Your task to perform on an android device: turn on the 12-hour format for clock Image 0: 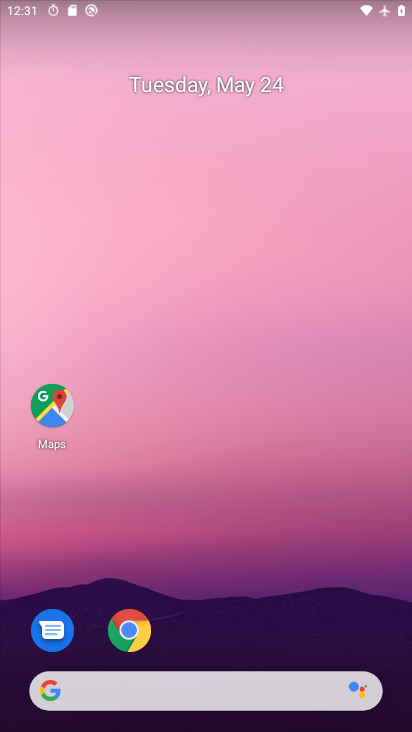
Step 0: drag from (209, 625) to (257, 135)
Your task to perform on an android device: turn on the 12-hour format for clock Image 1: 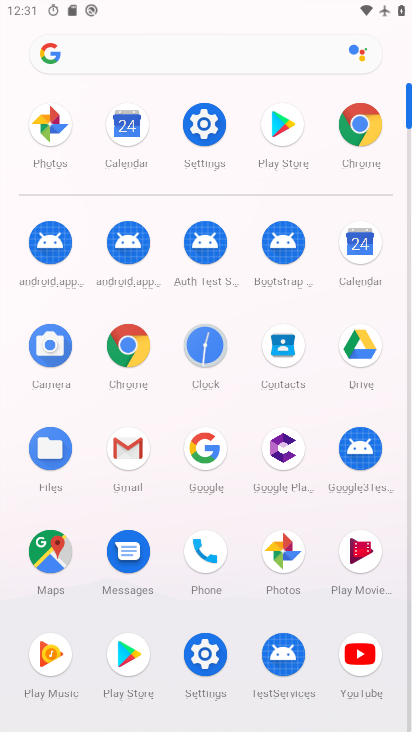
Step 1: click (226, 660)
Your task to perform on an android device: turn on the 12-hour format for clock Image 2: 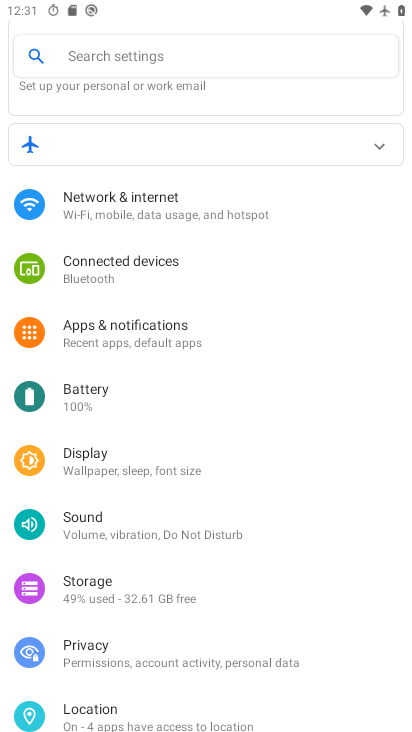
Step 2: drag from (157, 657) to (184, 386)
Your task to perform on an android device: turn on the 12-hour format for clock Image 3: 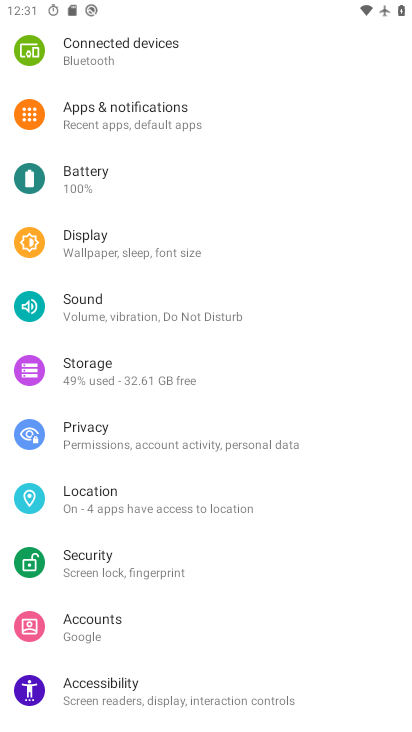
Step 3: drag from (140, 607) to (195, 379)
Your task to perform on an android device: turn on the 12-hour format for clock Image 4: 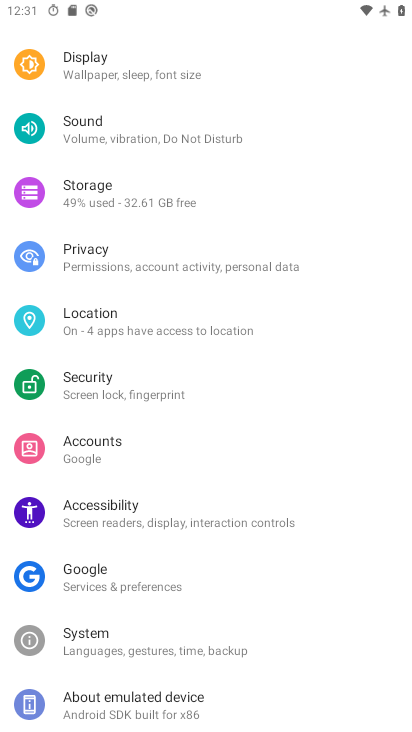
Step 4: click (146, 661)
Your task to perform on an android device: turn on the 12-hour format for clock Image 5: 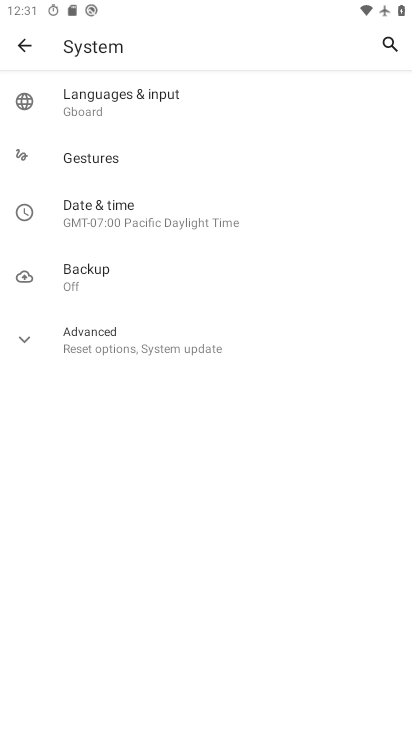
Step 5: click (133, 226)
Your task to perform on an android device: turn on the 12-hour format for clock Image 6: 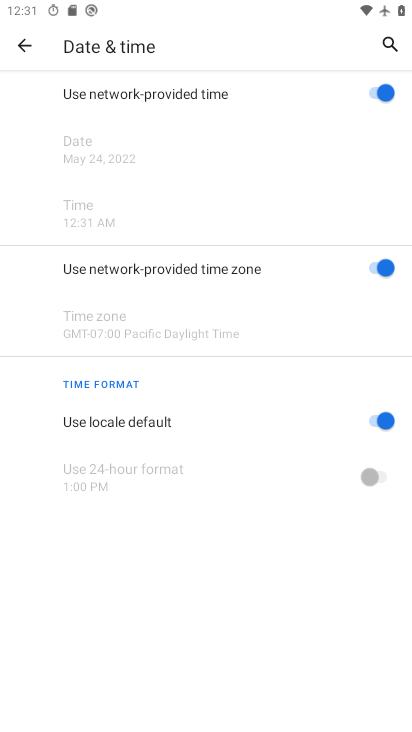
Step 6: task complete